Your task to perform on an android device: visit the assistant section in the google photos Image 0: 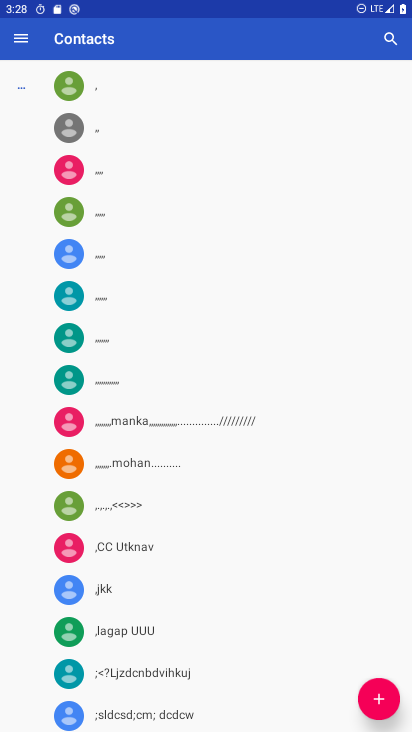
Step 0: press home button
Your task to perform on an android device: visit the assistant section in the google photos Image 1: 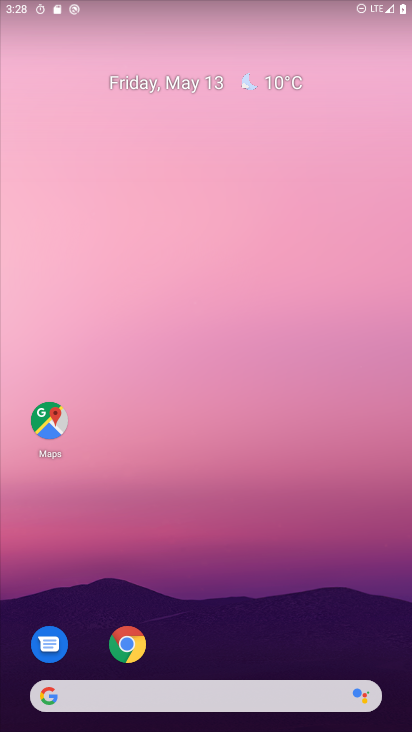
Step 1: drag from (292, 680) to (347, 59)
Your task to perform on an android device: visit the assistant section in the google photos Image 2: 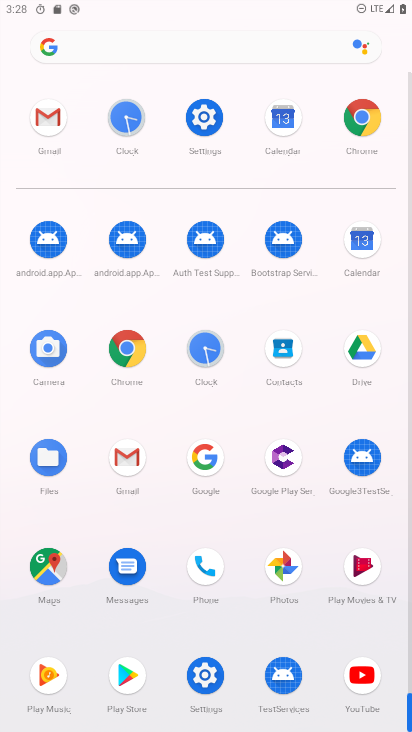
Step 2: click (282, 560)
Your task to perform on an android device: visit the assistant section in the google photos Image 3: 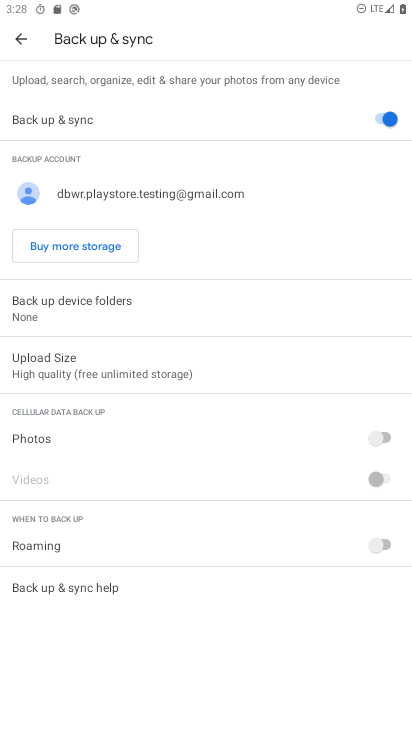
Step 3: press back button
Your task to perform on an android device: visit the assistant section in the google photos Image 4: 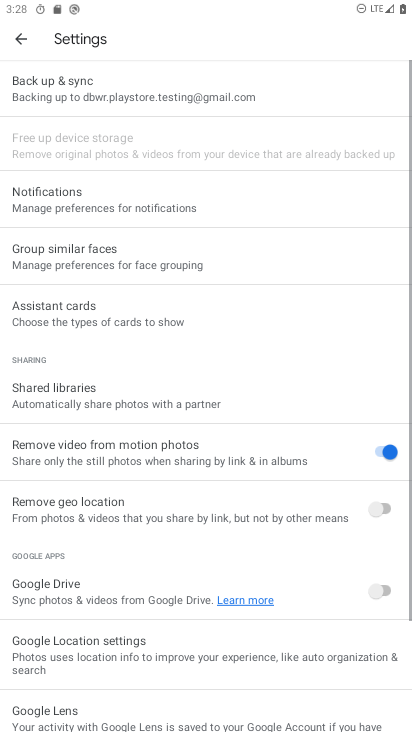
Step 4: press back button
Your task to perform on an android device: visit the assistant section in the google photos Image 5: 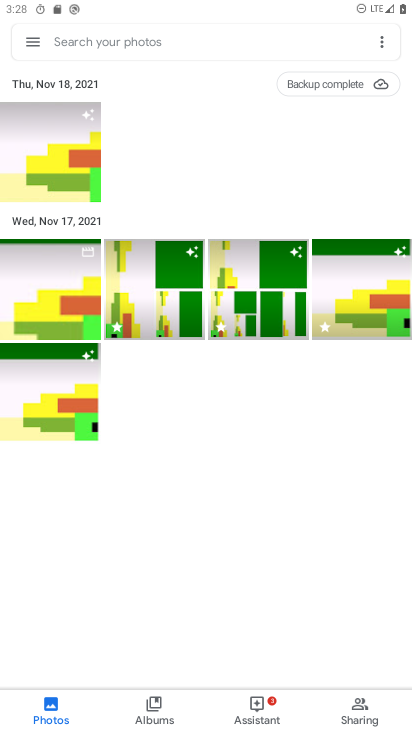
Step 5: click (306, 693)
Your task to perform on an android device: visit the assistant section in the google photos Image 6: 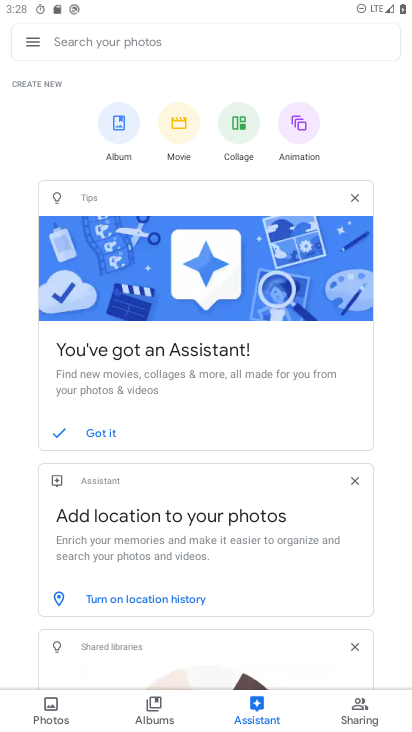
Step 6: task complete